Your task to perform on an android device: find photos in the google photos app Image 0: 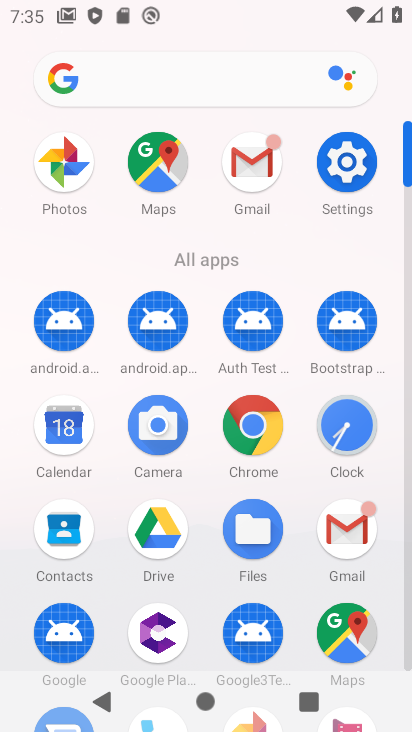
Step 0: click (72, 165)
Your task to perform on an android device: find photos in the google photos app Image 1: 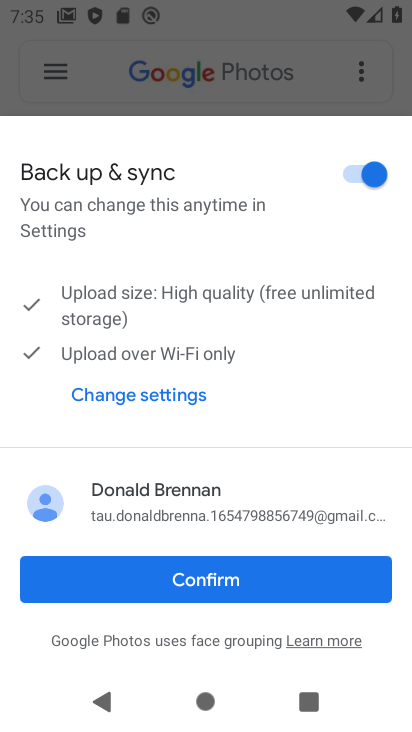
Step 1: click (235, 579)
Your task to perform on an android device: find photos in the google photos app Image 2: 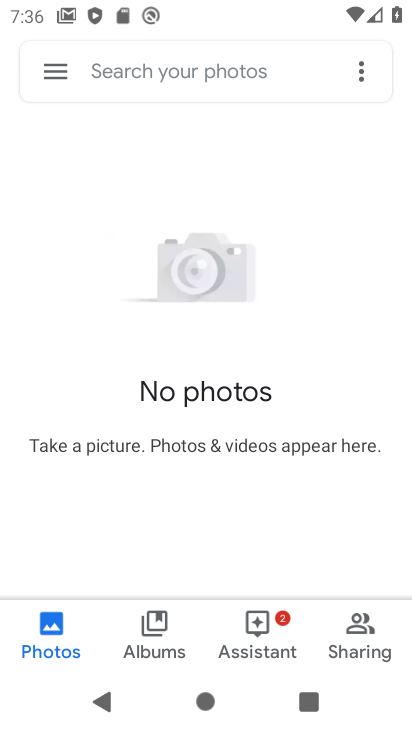
Step 2: task complete